Your task to perform on an android device: When is my next appointment? Image 0: 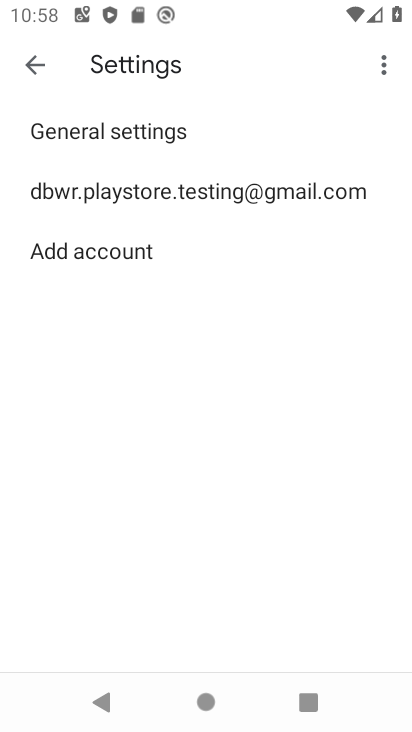
Step 0: press home button
Your task to perform on an android device: When is my next appointment? Image 1: 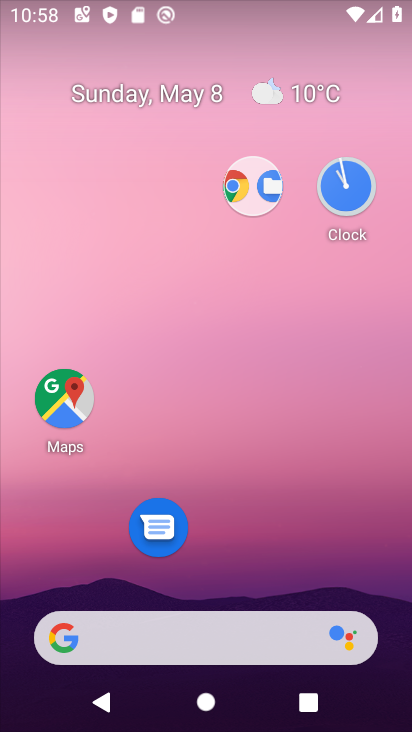
Step 1: drag from (329, 411) to (311, 45)
Your task to perform on an android device: When is my next appointment? Image 2: 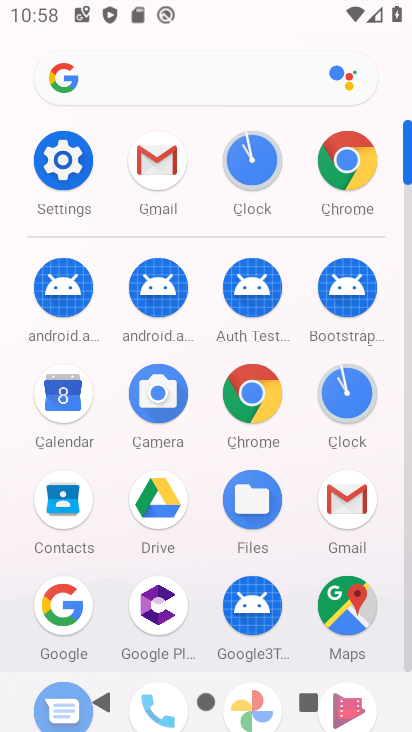
Step 2: click (60, 407)
Your task to perform on an android device: When is my next appointment? Image 3: 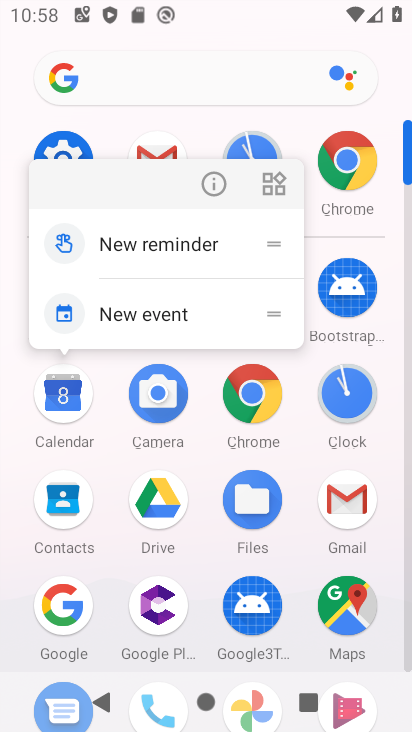
Step 3: click (58, 399)
Your task to perform on an android device: When is my next appointment? Image 4: 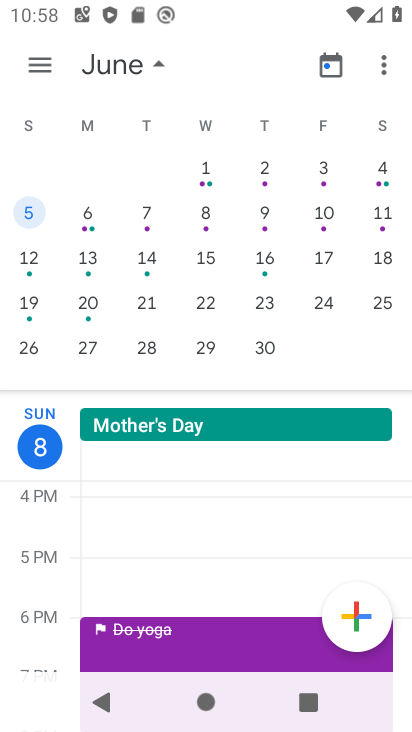
Step 4: click (55, 388)
Your task to perform on an android device: When is my next appointment? Image 5: 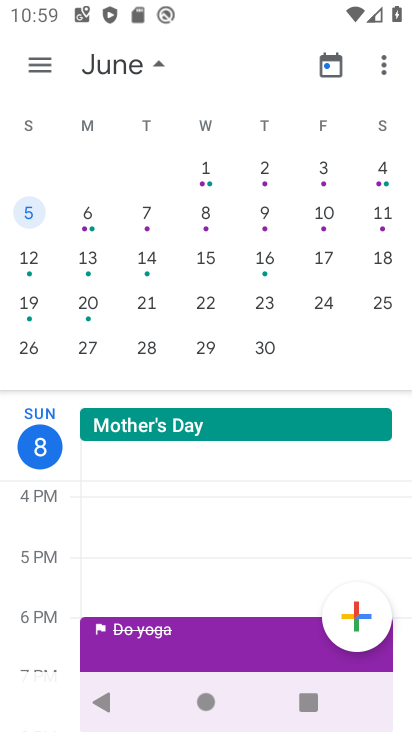
Step 5: task complete